Your task to perform on an android device: turn on bluetooth scan Image 0: 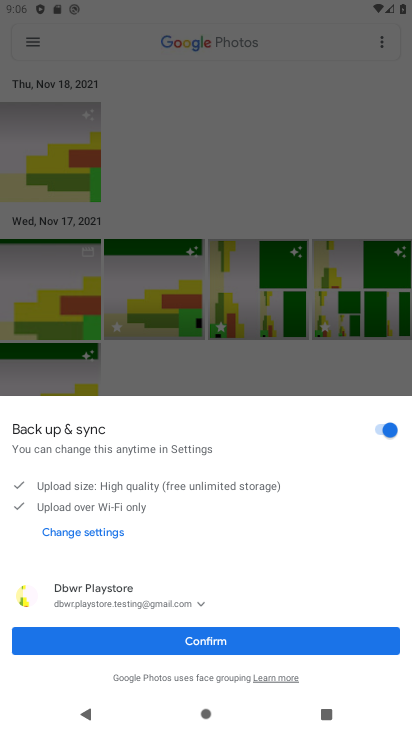
Step 0: press home button
Your task to perform on an android device: turn on bluetooth scan Image 1: 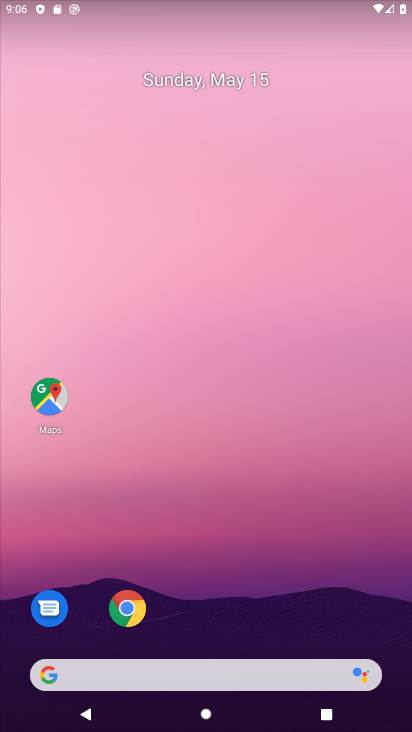
Step 1: drag from (290, 501) to (8, 77)
Your task to perform on an android device: turn on bluetooth scan Image 2: 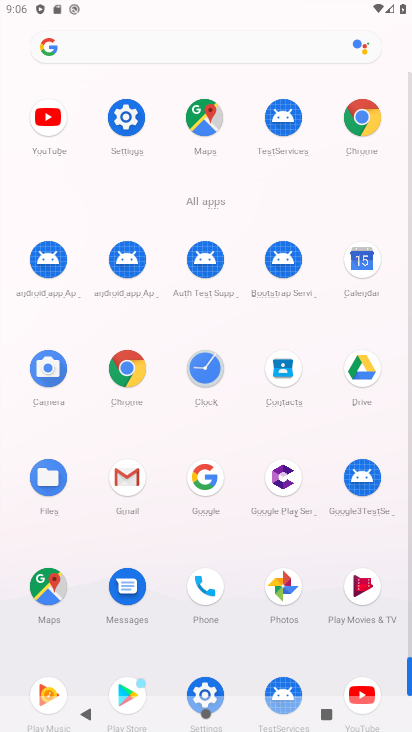
Step 2: click (120, 115)
Your task to perform on an android device: turn on bluetooth scan Image 3: 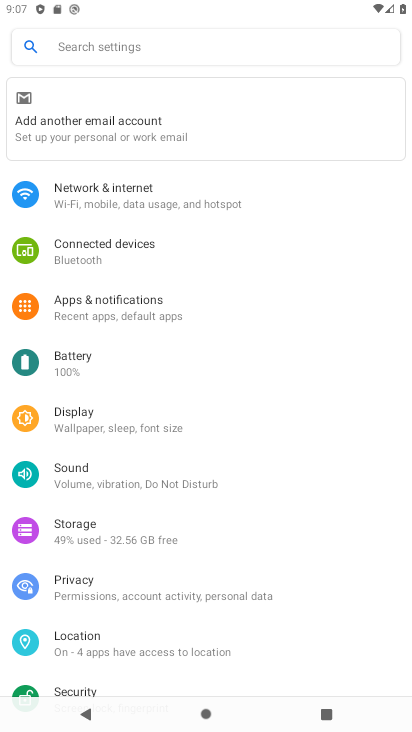
Step 3: drag from (201, 541) to (181, 247)
Your task to perform on an android device: turn on bluetooth scan Image 4: 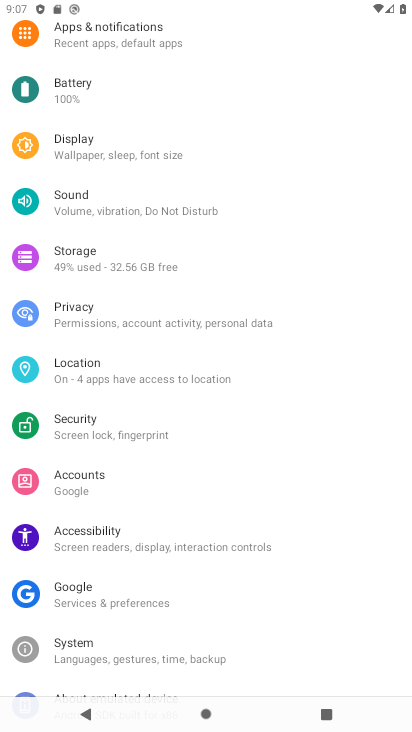
Step 4: click (98, 373)
Your task to perform on an android device: turn on bluetooth scan Image 5: 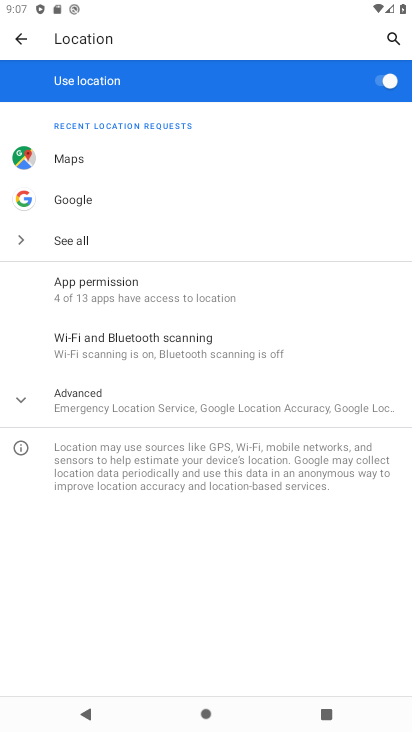
Step 5: click (123, 346)
Your task to perform on an android device: turn on bluetooth scan Image 6: 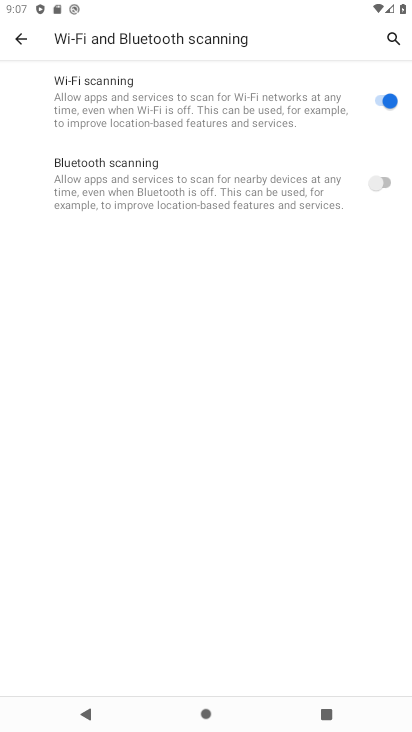
Step 6: click (380, 180)
Your task to perform on an android device: turn on bluetooth scan Image 7: 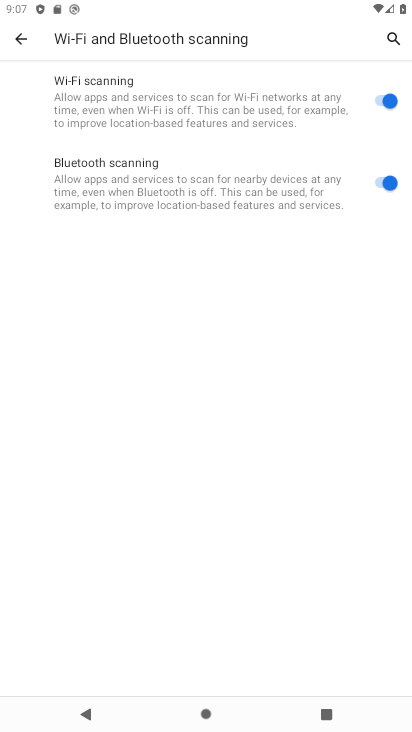
Step 7: task complete